Your task to perform on an android device: toggle sleep mode Image 0: 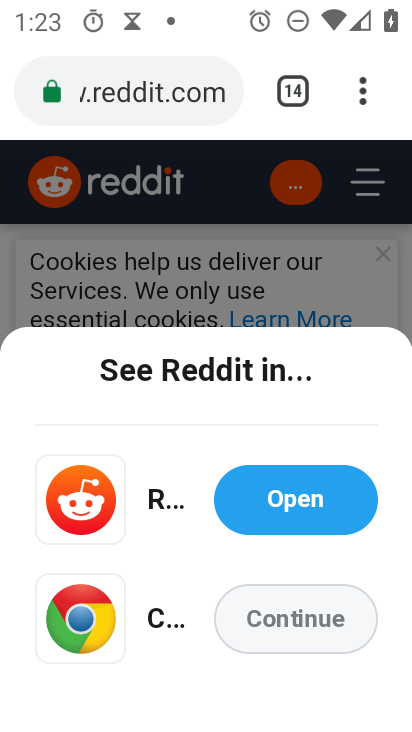
Step 0: press home button
Your task to perform on an android device: toggle sleep mode Image 1: 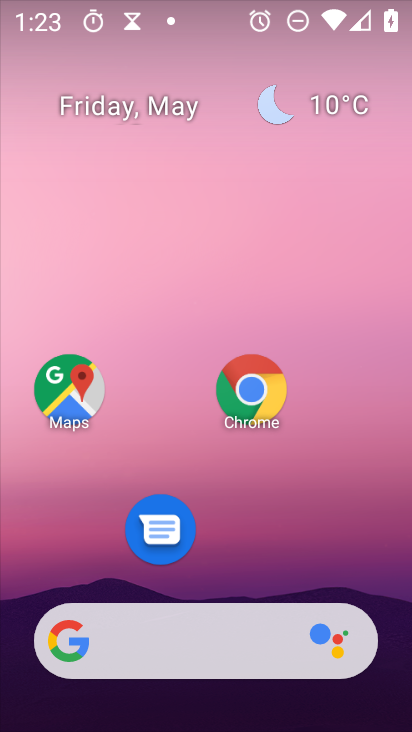
Step 1: drag from (192, 642) to (315, 56)
Your task to perform on an android device: toggle sleep mode Image 2: 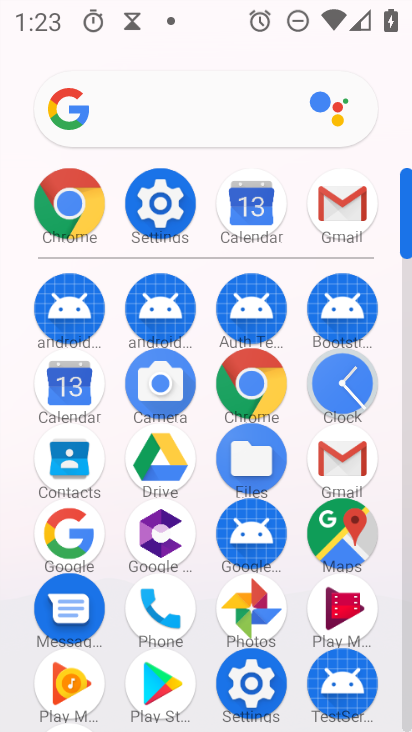
Step 2: click (176, 210)
Your task to perform on an android device: toggle sleep mode Image 3: 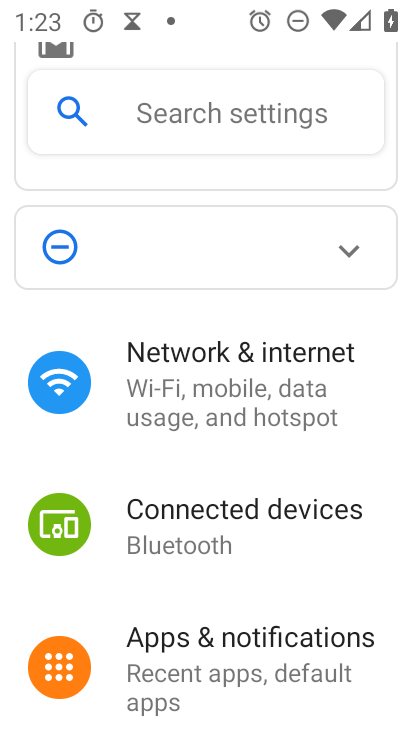
Step 3: drag from (230, 611) to (277, 265)
Your task to perform on an android device: toggle sleep mode Image 4: 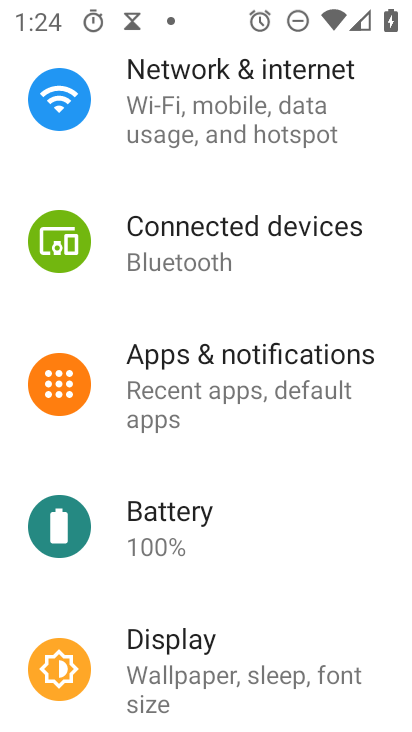
Step 4: click (229, 664)
Your task to perform on an android device: toggle sleep mode Image 5: 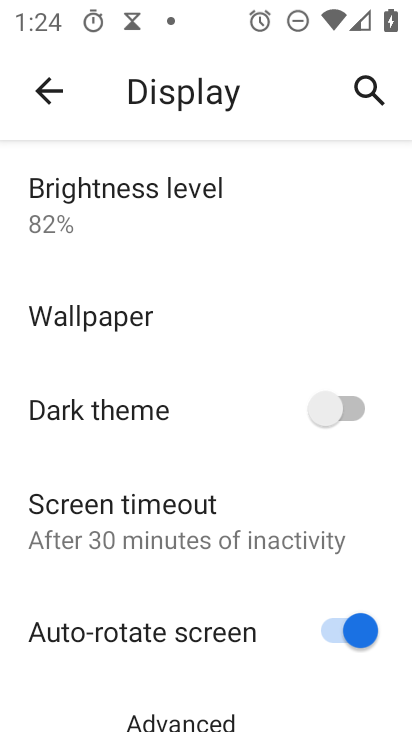
Step 5: task complete